Your task to perform on an android device: check battery use Image 0: 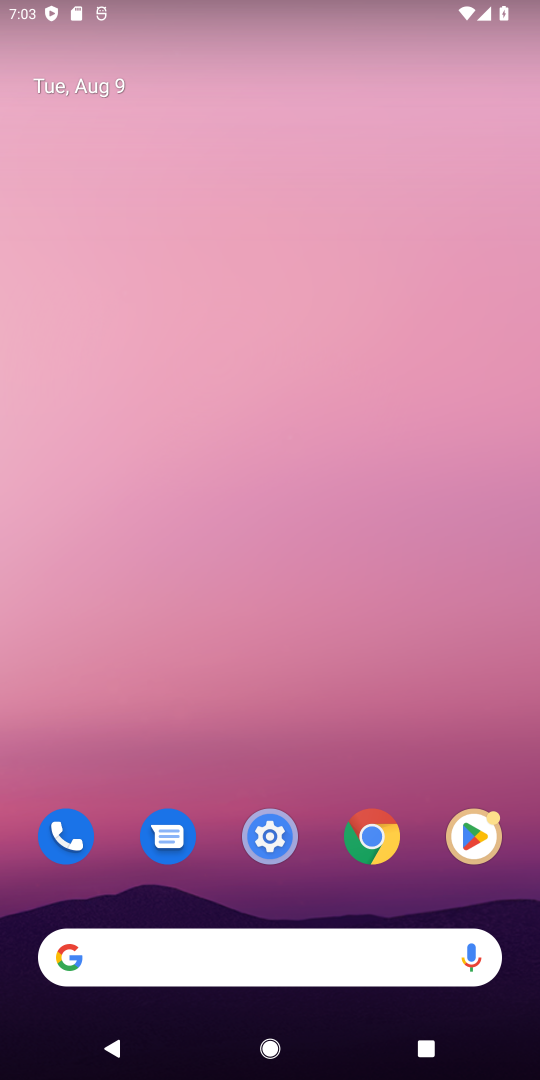
Step 0: drag from (367, 900) to (367, 550)
Your task to perform on an android device: check battery use Image 1: 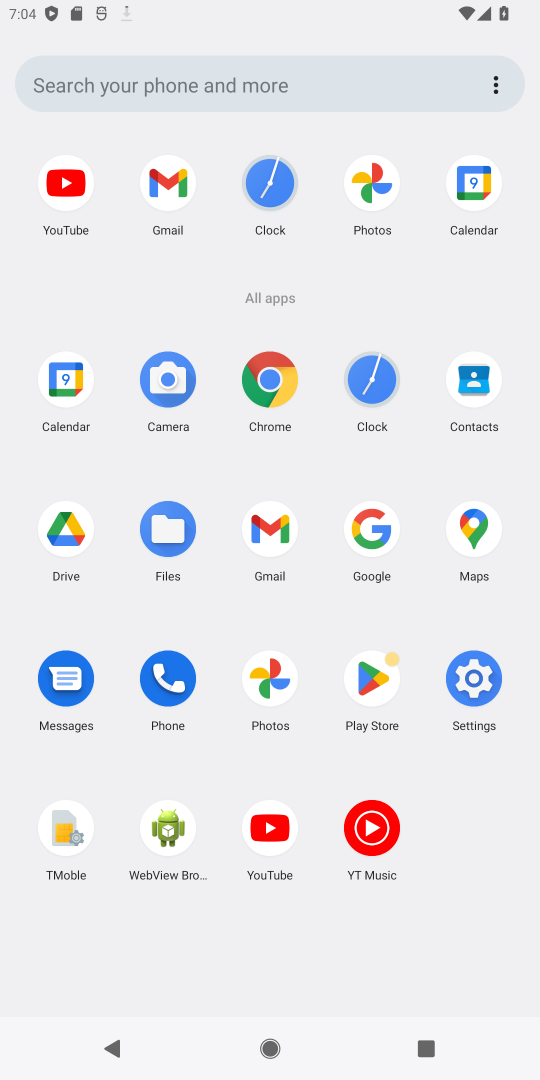
Step 1: click (469, 679)
Your task to perform on an android device: check battery use Image 2: 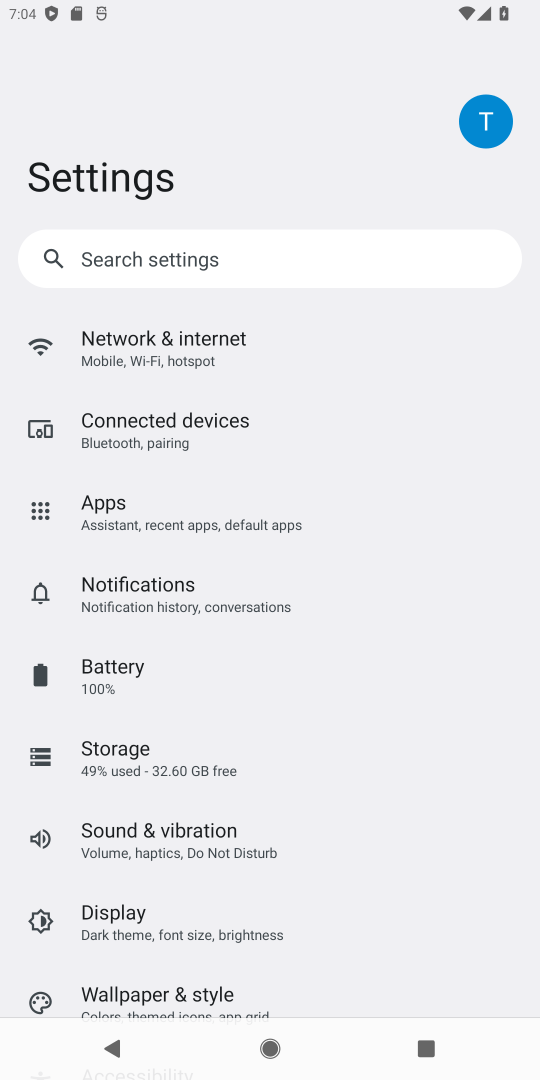
Step 2: click (114, 659)
Your task to perform on an android device: check battery use Image 3: 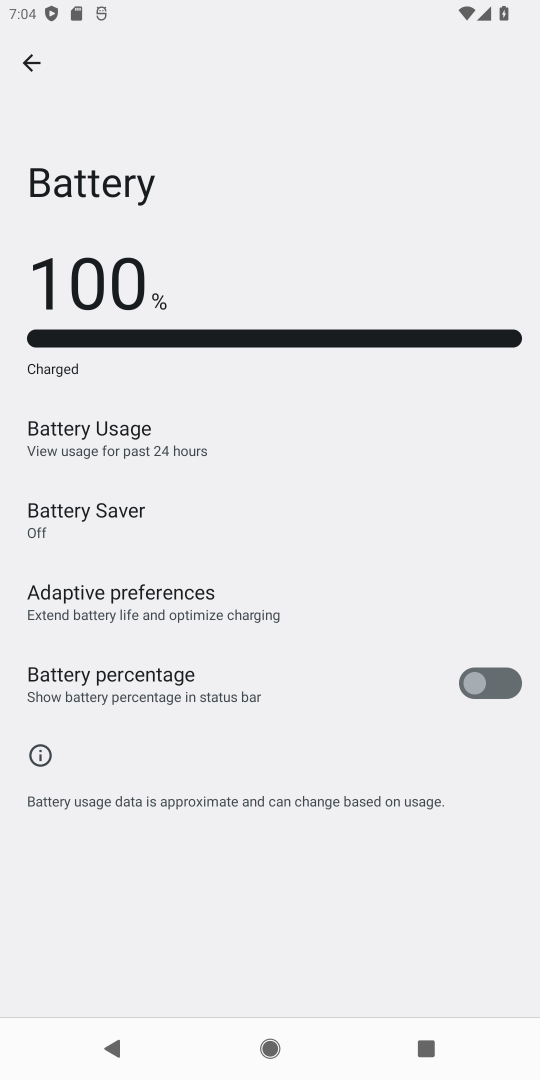
Step 3: task complete